Your task to perform on an android device: What's the news in Chile? Image 0: 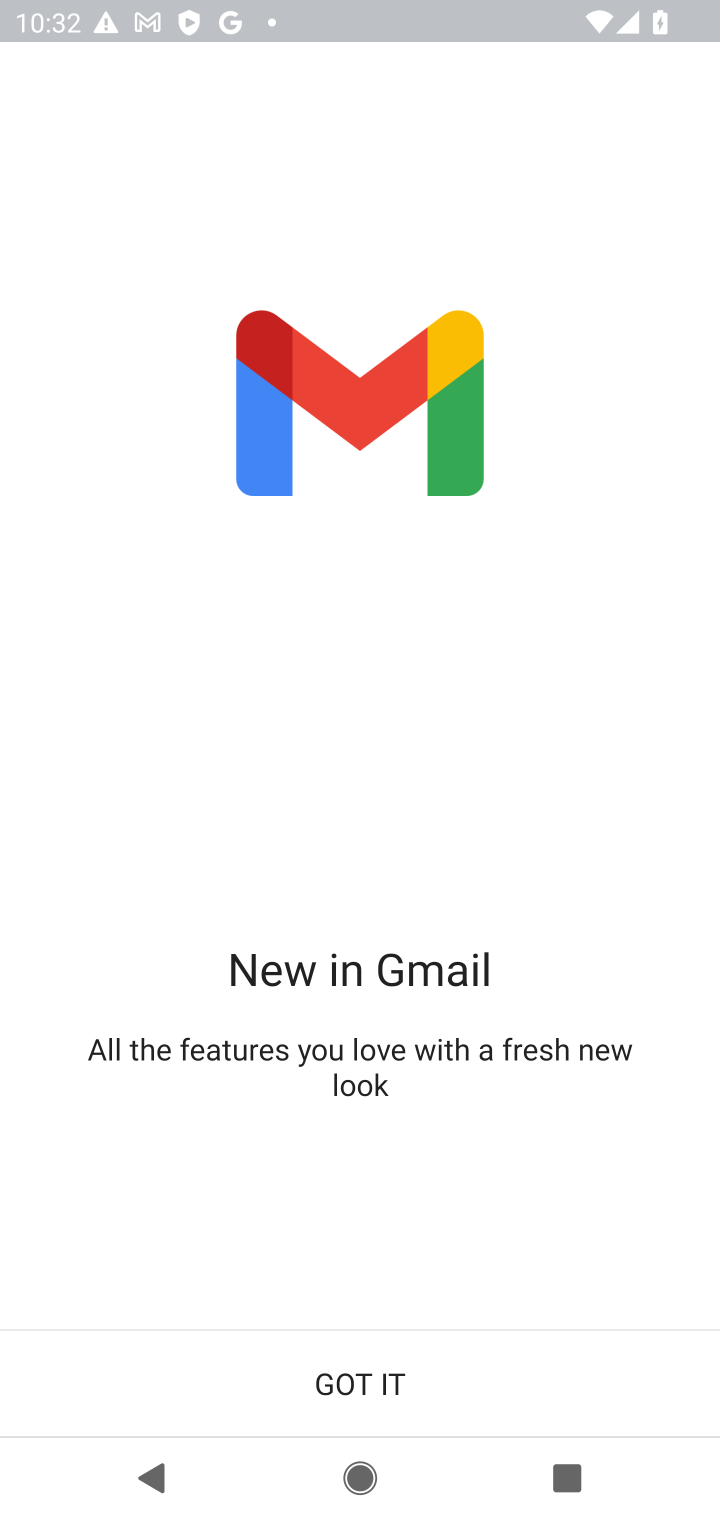
Step 0: press home button
Your task to perform on an android device: What's the news in Chile? Image 1: 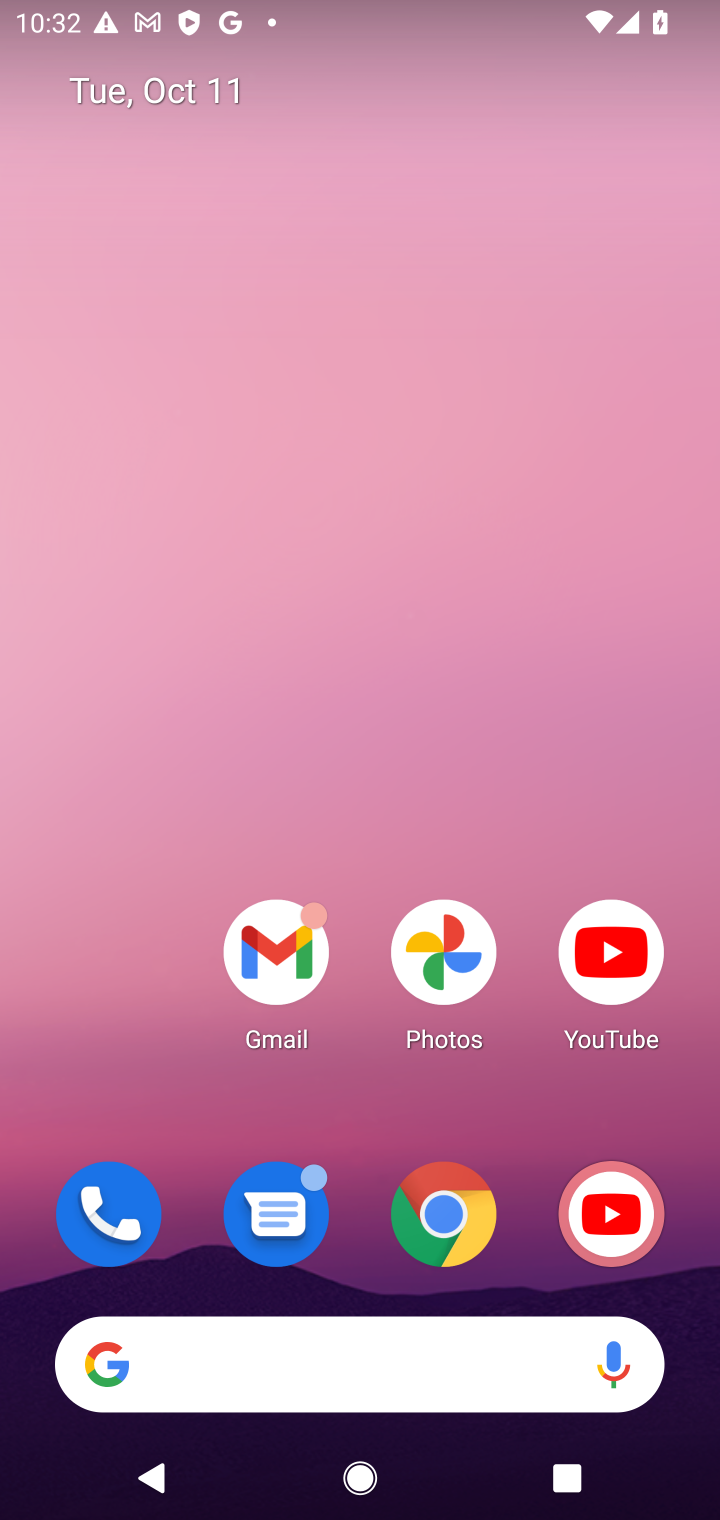
Step 1: drag from (348, 1089) to (245, 5)
Your task to perform on an android device: What's the news in Chile? Image 2: 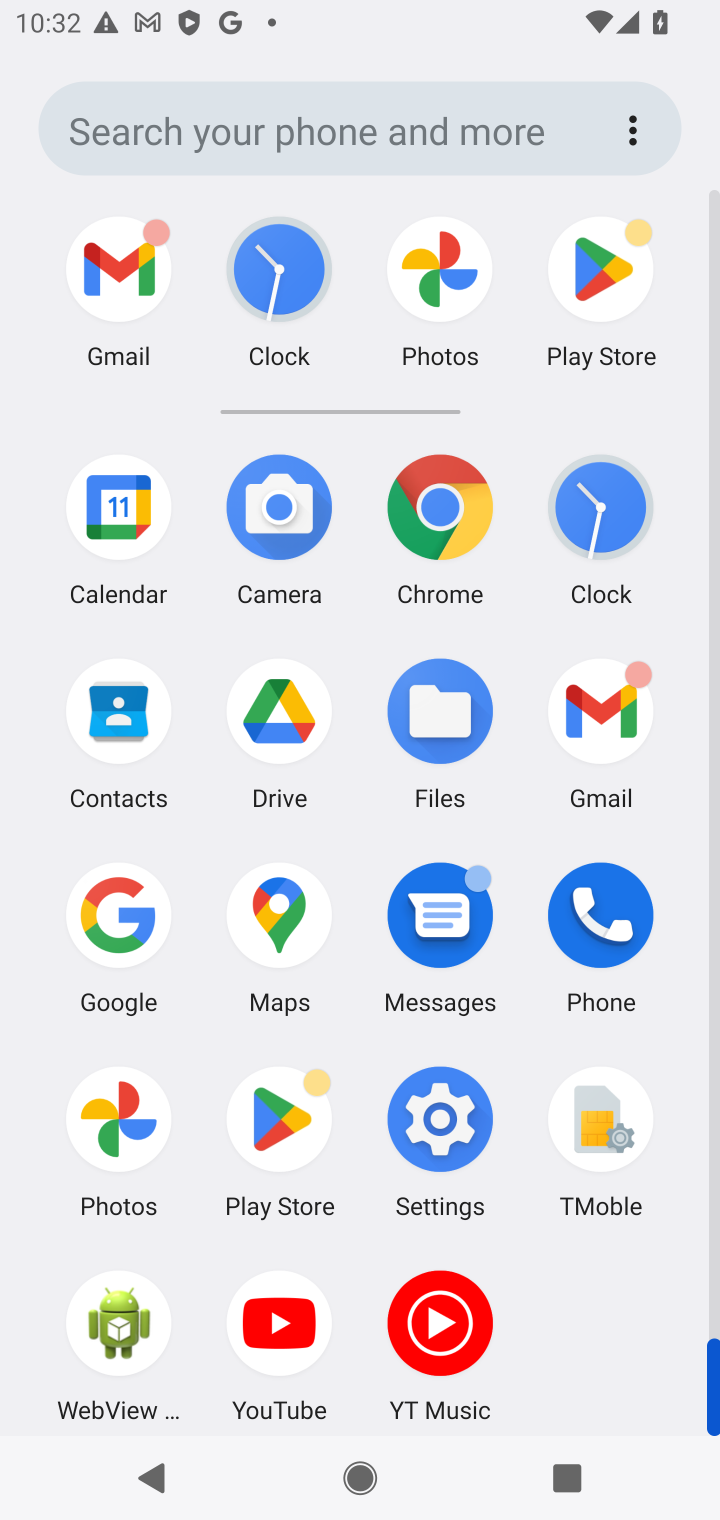
Step 2: click (455, 500)
Your task to perform on an android device: What's the news in Chile? Image 3: 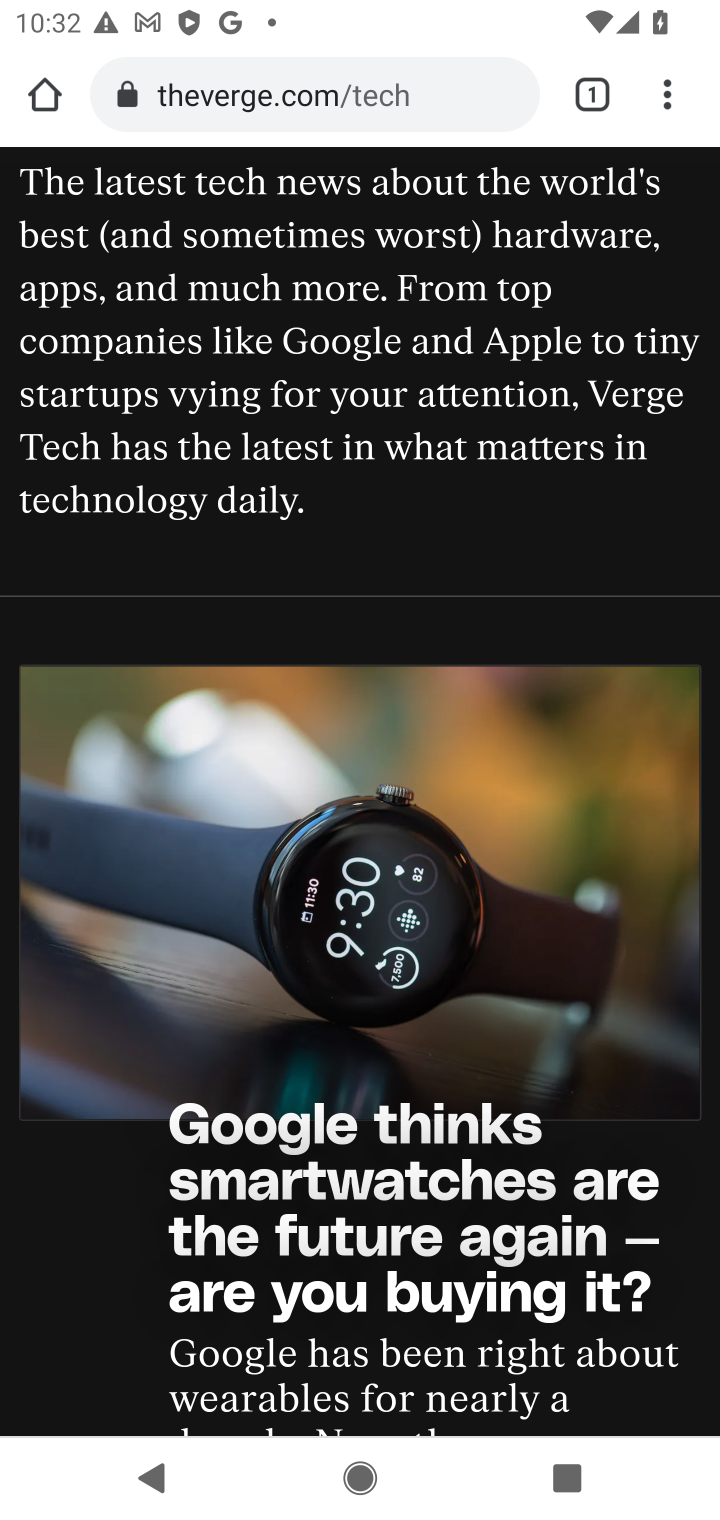
Step 3: click (394, 97)
Your task to perform on an android device: What's the news in Chile? Image 4: 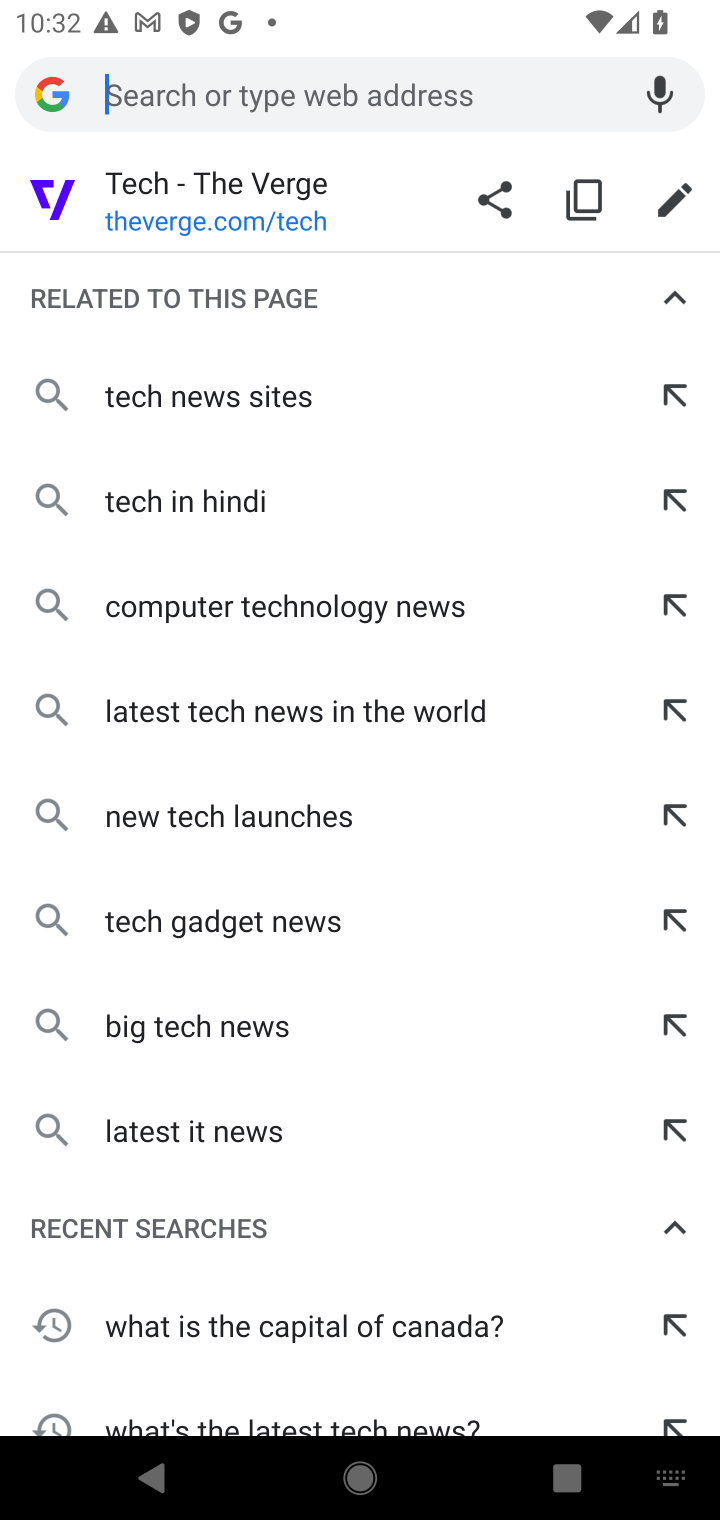
Step 4: type "What's the news in Chile?"
Your task to perform on an android device: What's the news in Chile? Image 5: 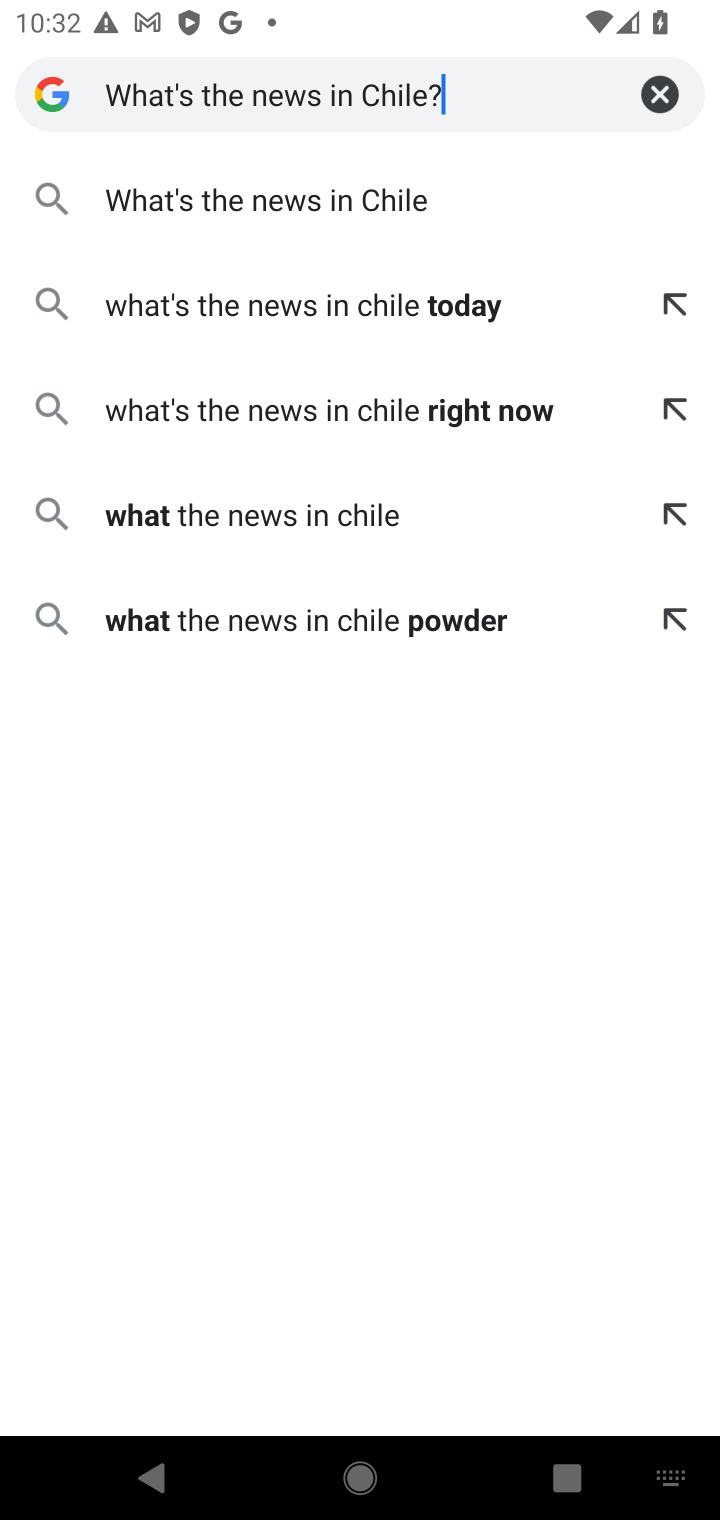
Step 5: press enter
Your task to perform on an android device: What's the news in Chile? Image 6: 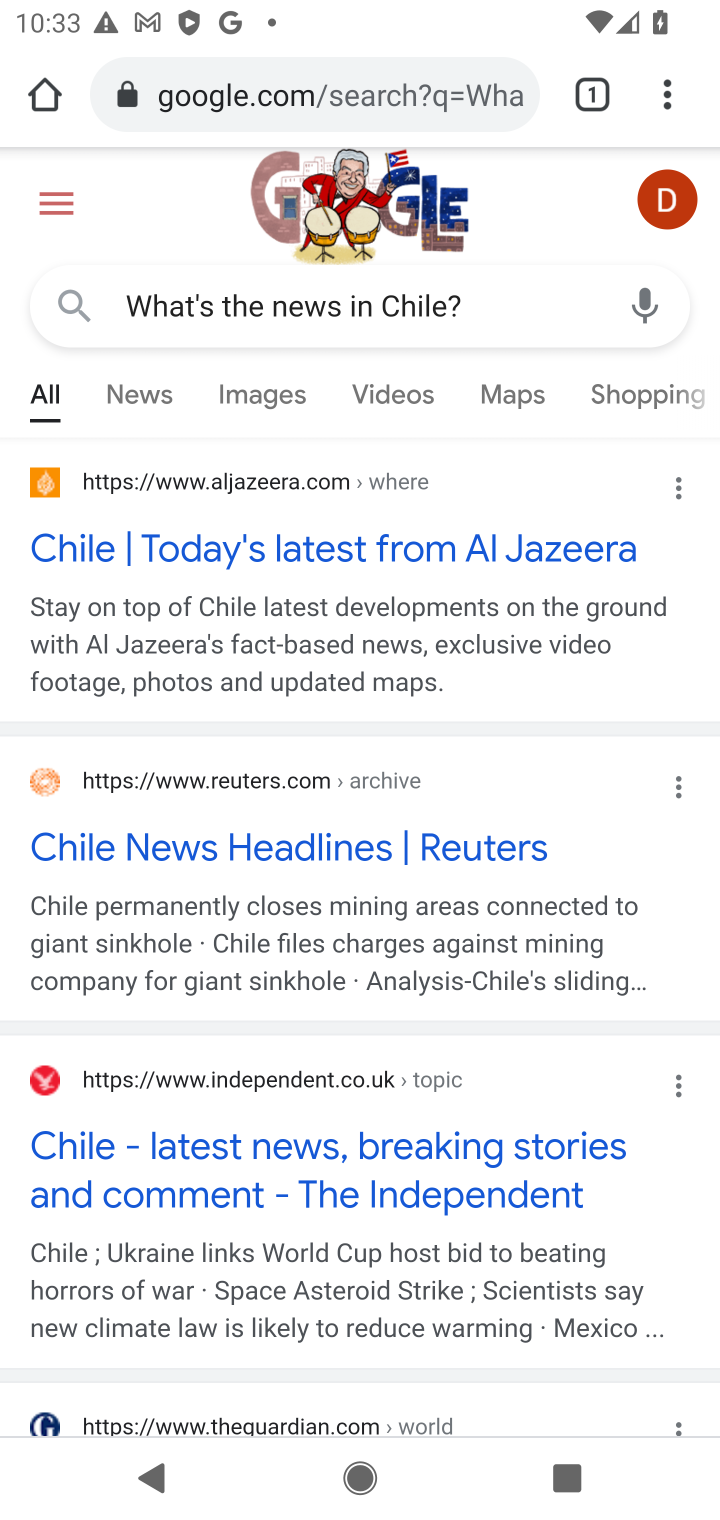
Step 6: click (466, 539)
Your task to perform on an android device: What's the news in Chile? Image 7: 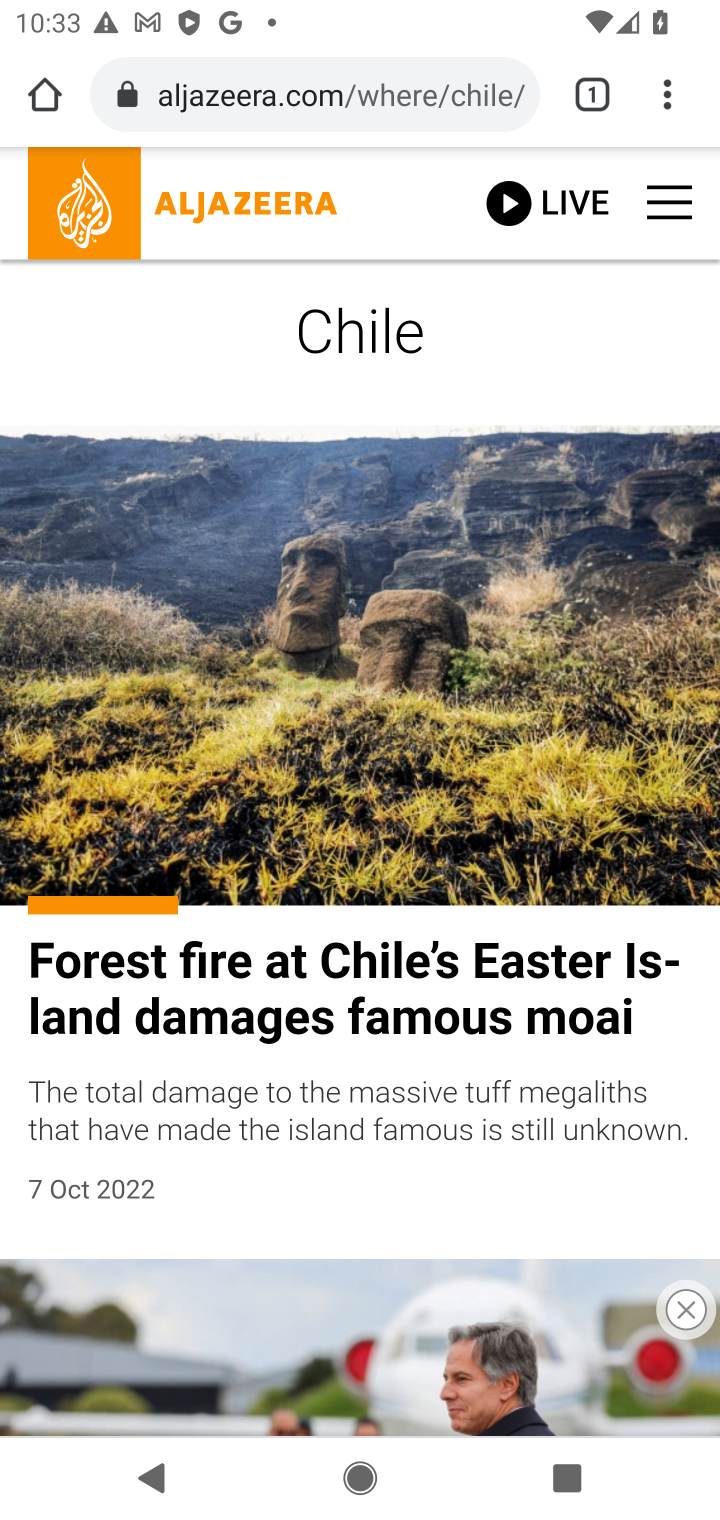
Step 7: task complete